Your task to perform on an android device: Open wifi settings Image 0: 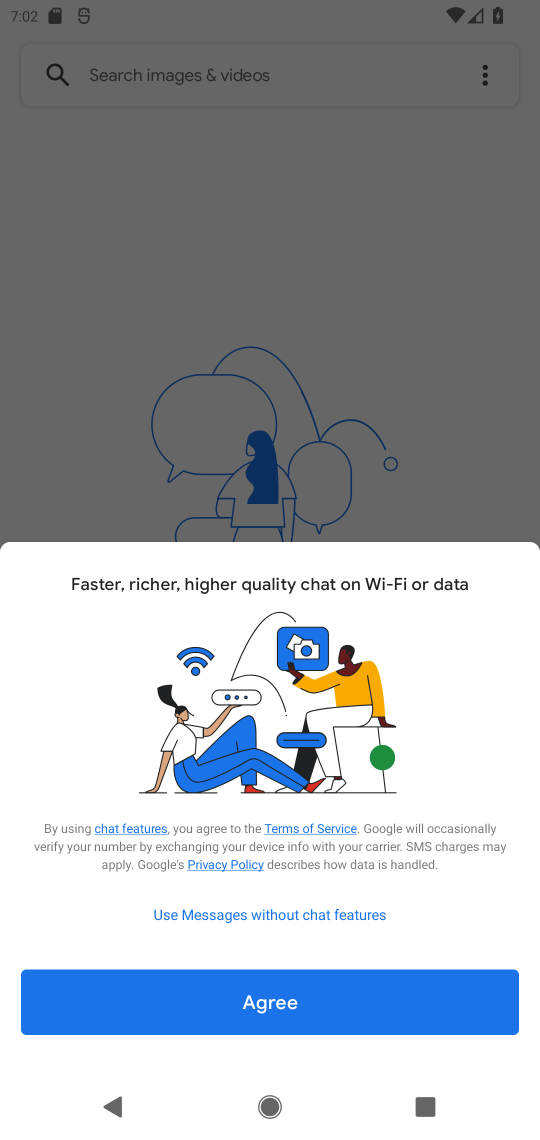
Step 0: drag from (156, 30) to (243, 1026)
Your task to perform on an android device: Open wifi settings Image 1: 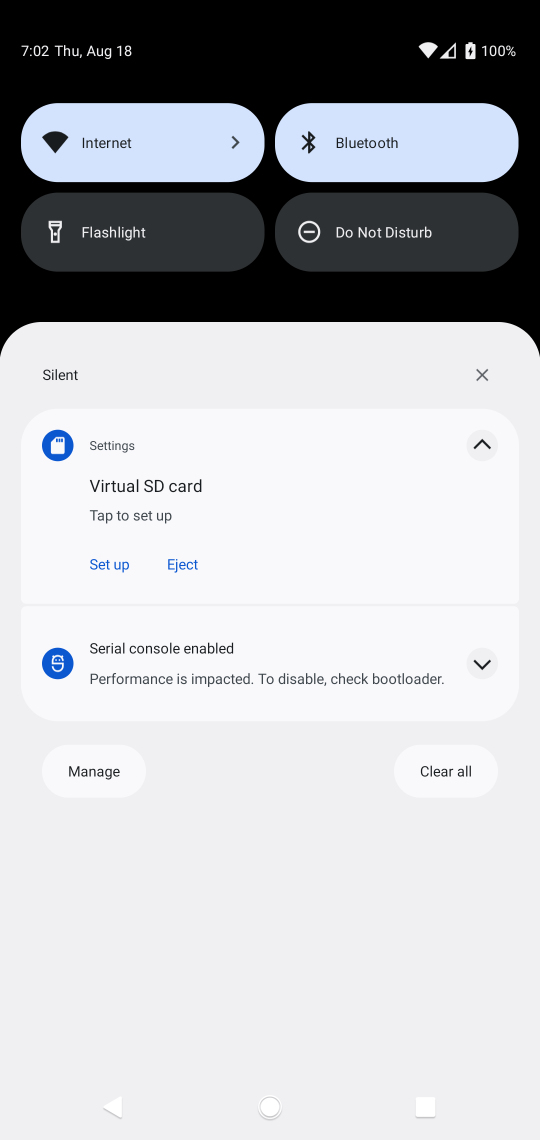
Step 1: click (207, 145)
Your task to perform on an android device: Open wifi settings Image 2: 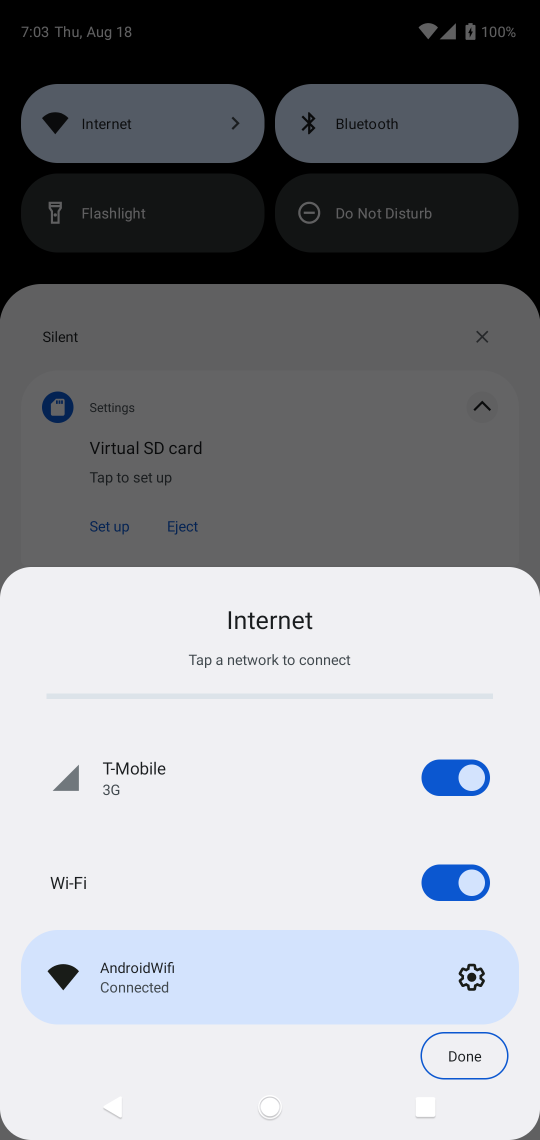
Step 2: click (478, 975)
Your task to perform on an android device: Open wifi settings Image 3: 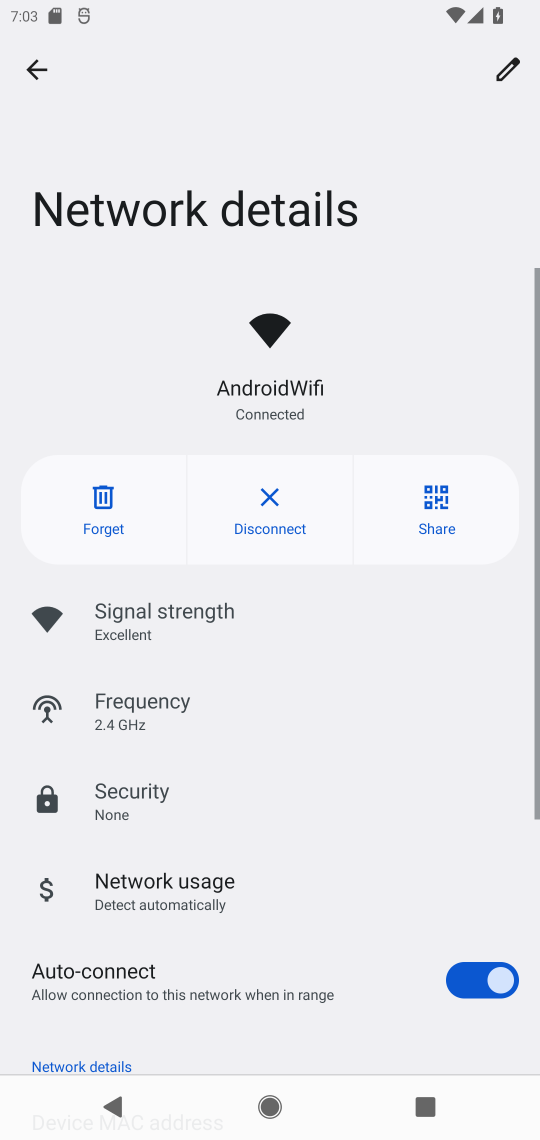
Step 3: task complete